Your task to perform on an android device: Go to Google maps Image 0: 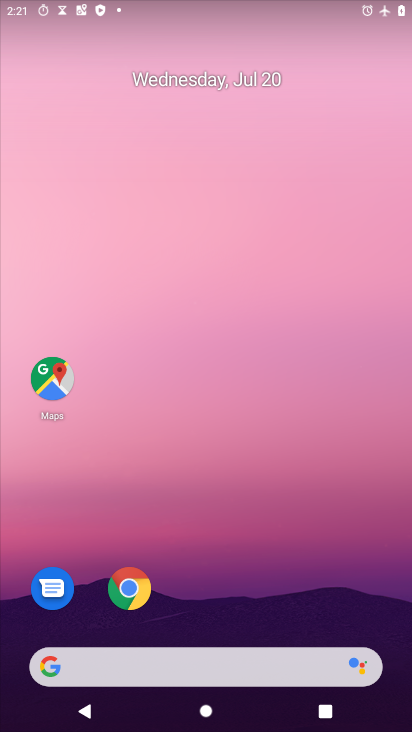
Step 0: drag from (279, 530) to (228, 62)
Your task to perform on an android device: Go to Google maps Image 1: 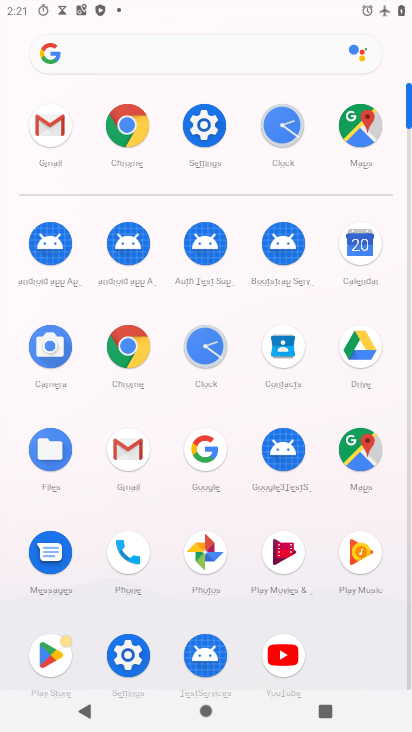
Step 1: click (123, 346)
Your task to perform on an android device: Go to Google maps Image 2: 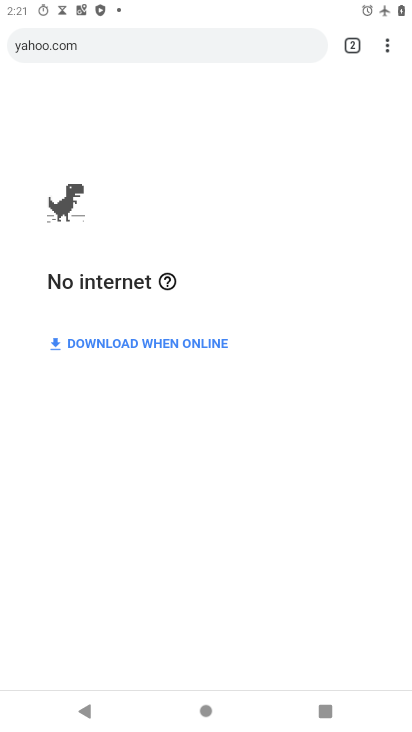
Step 2: press home button
Your task to perform on an android device: Go to Google maps Image 3: 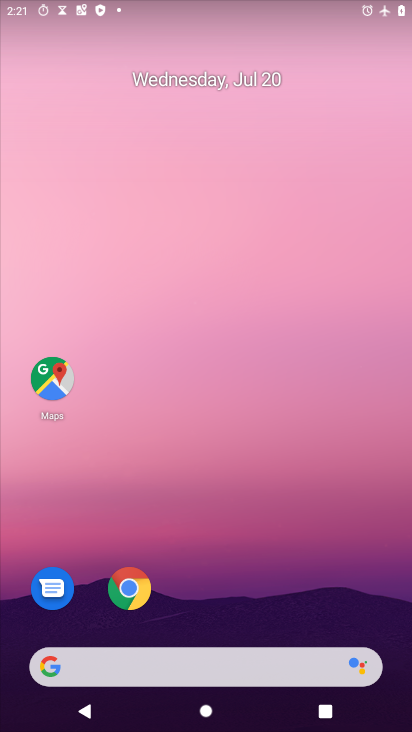
Step 3: drag from (254, 305) to (297, 5)
Your task to perform on an android device: Go to Google maps Image 4: 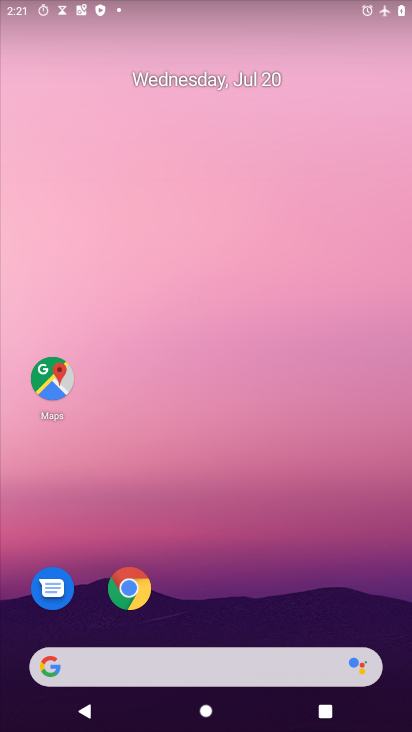
Step 4: drag from (249, 403) to (266, 25)
Your task to perform on an android device: Go to Google maps Image 5: 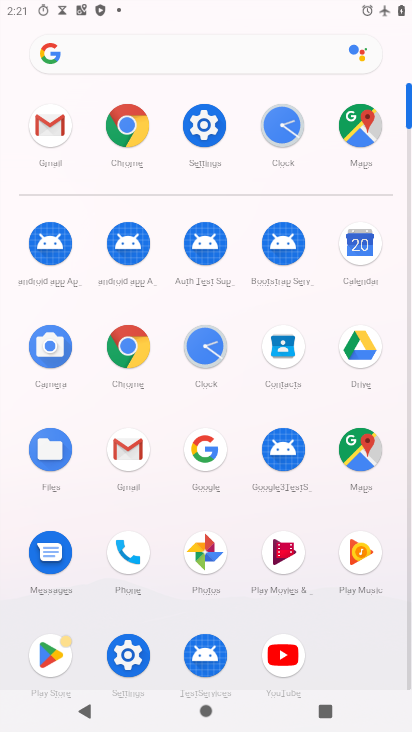
Step 5: click (356, 457)
Your task to perform on an android device: Go to Google maps Image 6: 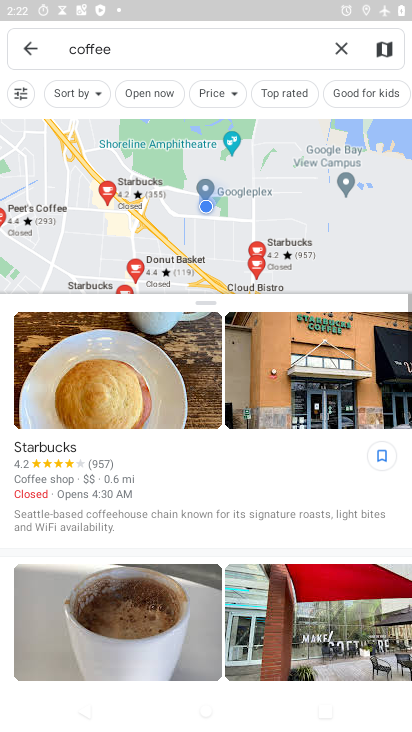
Step 6: task complete